Your task to perform on an android device: check google app version Image 0: 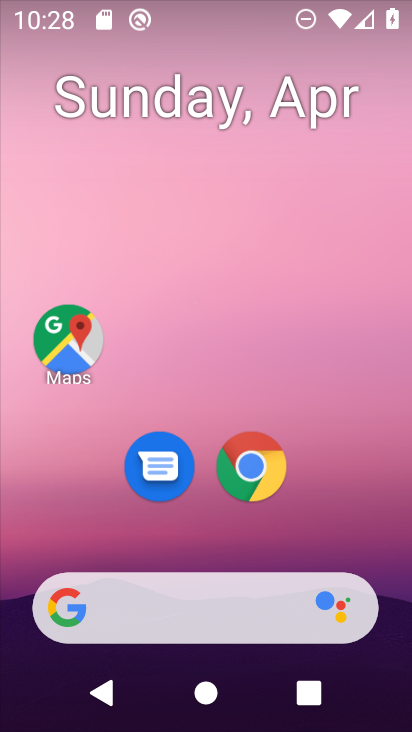
Step 0: drag from (370, 534) to (384, 77)
Your task to perform on an android device: check google app version Image 1: 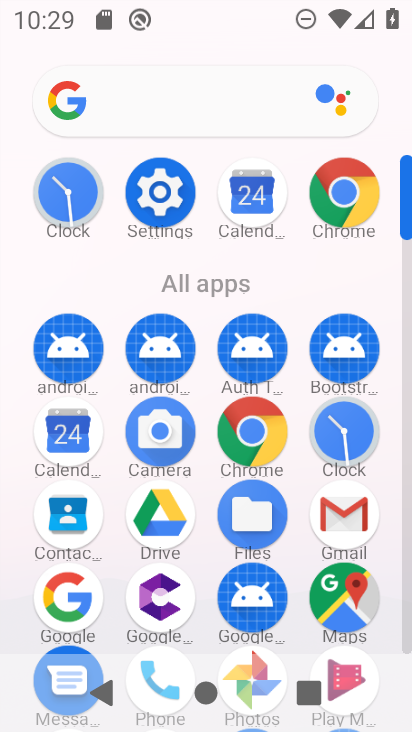
Step 1: click (71, 597)
Your task to perform on an android device: check google app version Image 2: 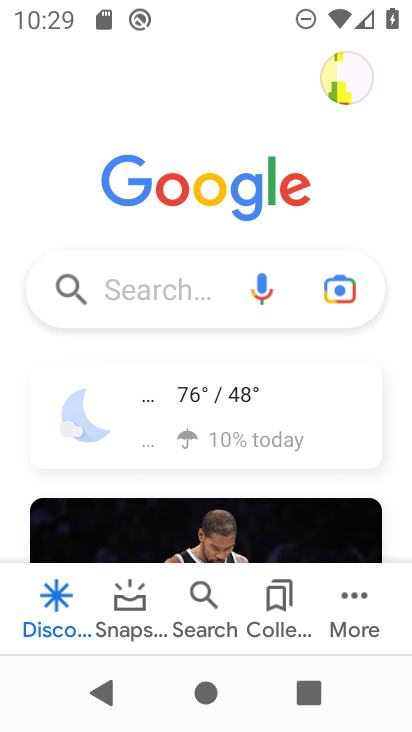
Step 2: click (360, 598)
Your task to perform on an android device: check google app version Image 3: 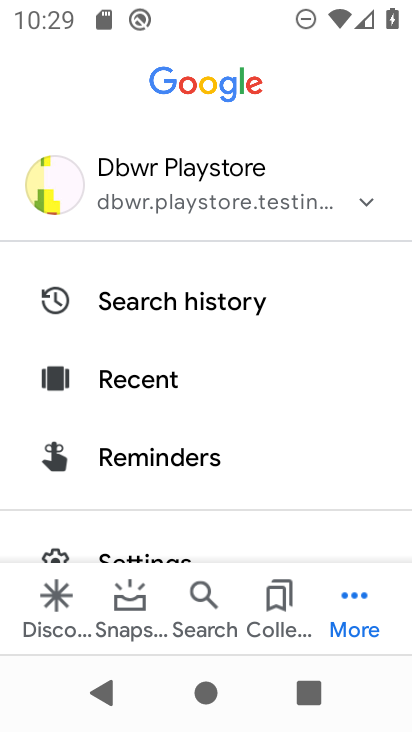
Step 3: drag from (287, 467) to (279, 258)
Your task to perform on an android device: check google app version Image 4: 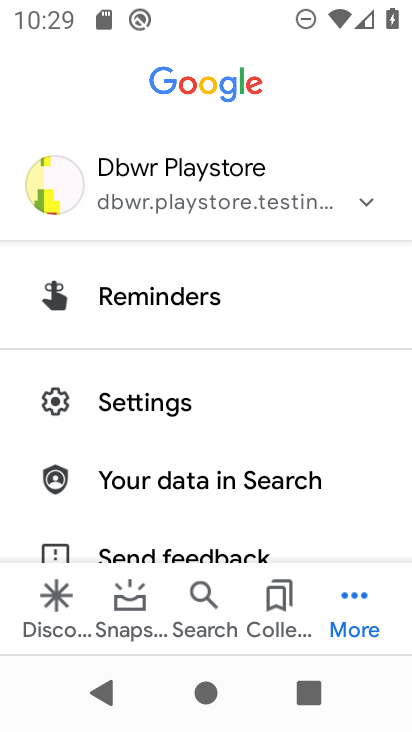
Step 4: click (165, 403)
Your task to perform on an android device: check google app version Image 5: 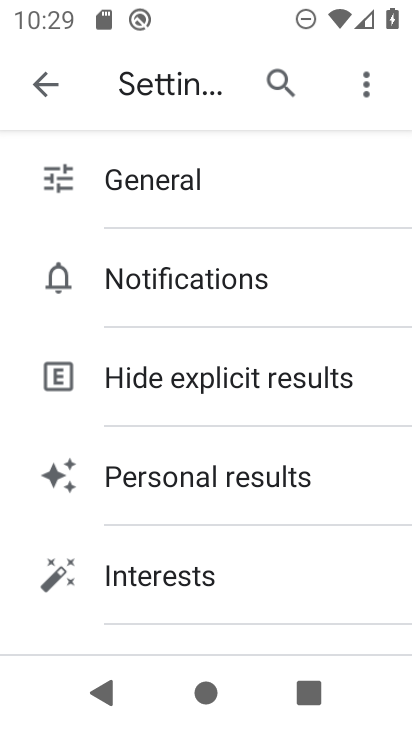
Step 5: drag from (287, 561) to (299, 182)
Your task to perform on an android device: check google app version Image 6: 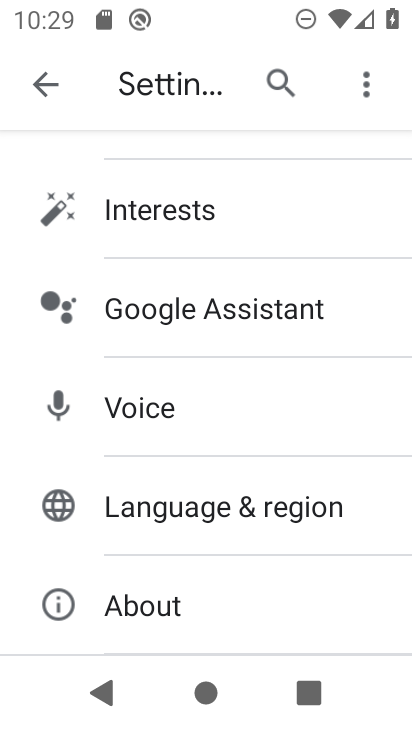
Step 6: click (218, 616)
Your task to perform on an android device: check google app version Image 7: 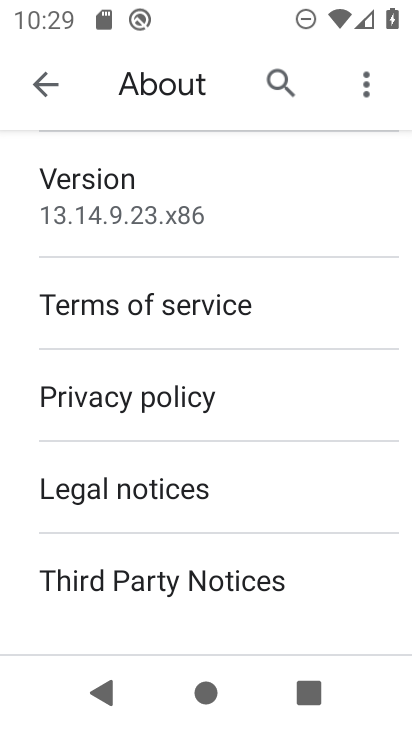
Step 7: task complete